Your task to perform on an android device: read, delete, or share a saved page in the chrome app Image 0: 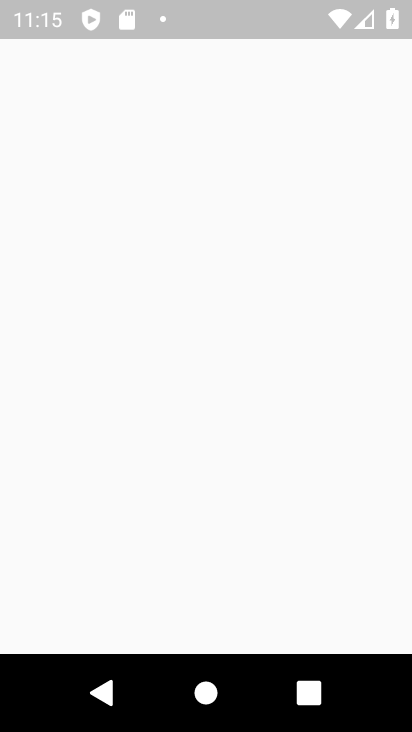
Step 0: press home button
Your task to perform on an android device: read, delete, or share a saved page in the chrome app Image 1: 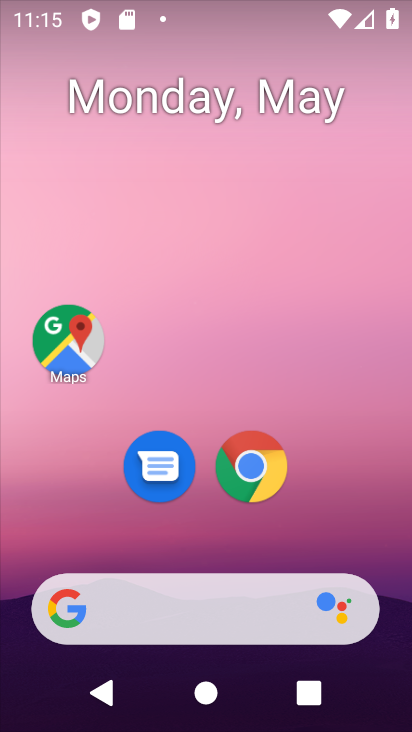
Step 1: click (250, 459)
Your task to perform on an android device: read, delete, or share a saved page in the chrome app Image 2: 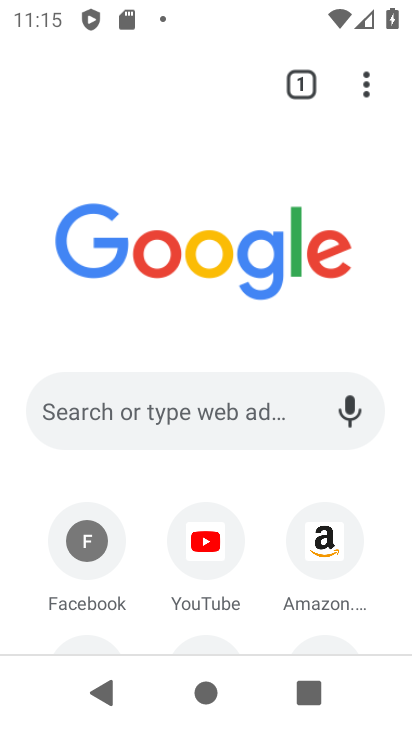
Step 2: drag from (378, 93) to (237, 367)
Your task to perform on an android device: read, delete, or share a saved page in the chrome app Image 3: 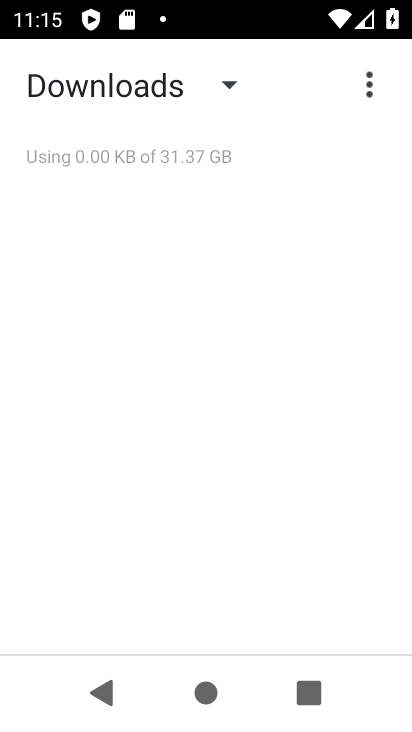
Step 3: click (99, 76)
Your task to perform on an android device: read, delete, or share a saved page in the chrome app Image 4: 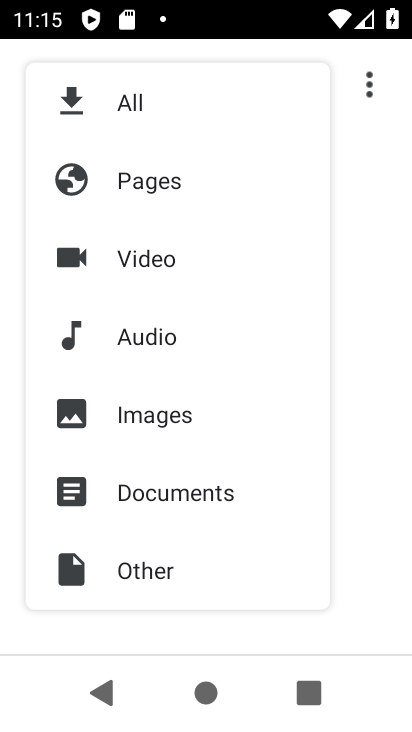
Step 4: click (175, 177)
Your task to perform on an android device: read, delete, or share a saved page in the chrome app Image 5: 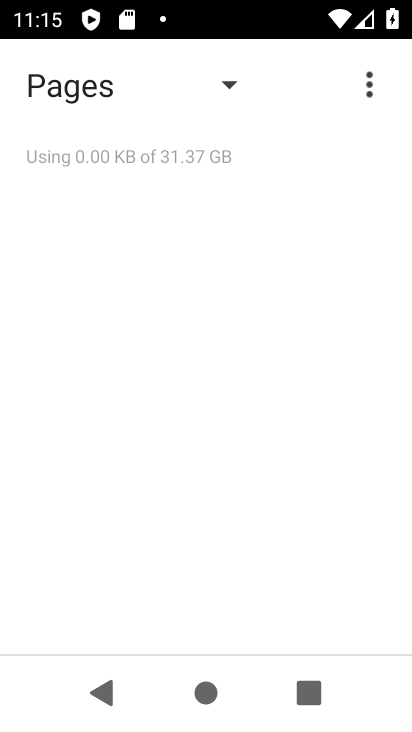
Step 5: task complete